Your task to perform on an android device: Go to Google maps Image 0: 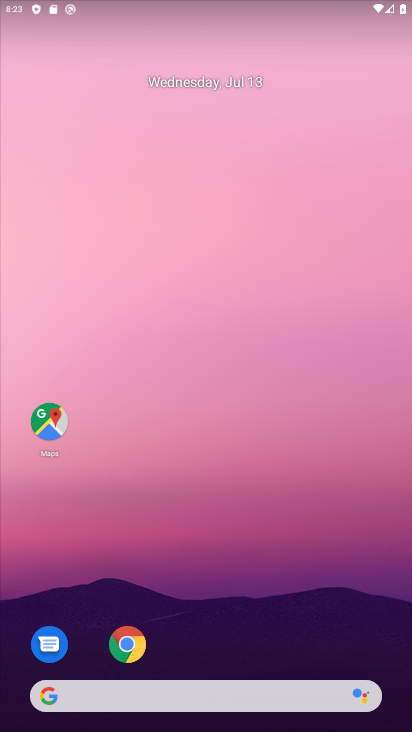
Step 0: drag from (218, 727) to (225, 81)
Your task to perform on an android device: Go to Google maps Image 1: 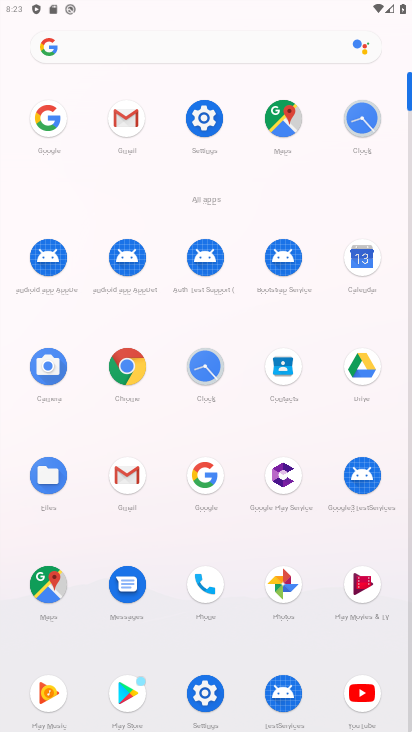
Step 1: click (45, 576)
Your task to perform on an android device: Go to Google maps Image 2: 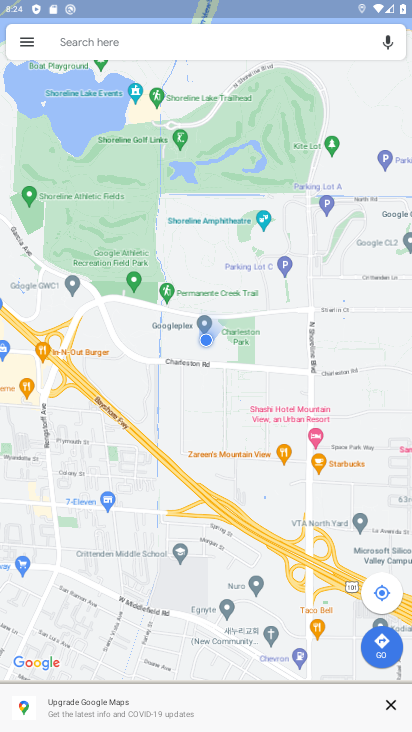
Step 2: task complete